Your task to perform on an android device: Open calendar and show me the fourth week of next month Image 0: 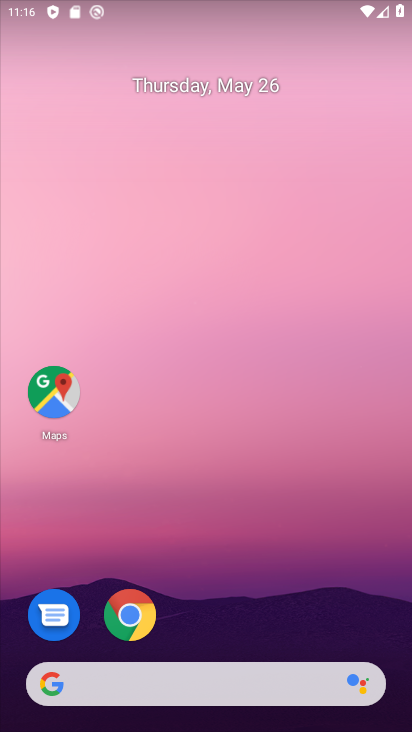
Step 0: drag from (237, 648) to (139, 177)
Your task to perform on an android device: Open calendar and show me the fourth week of next month Image 1: 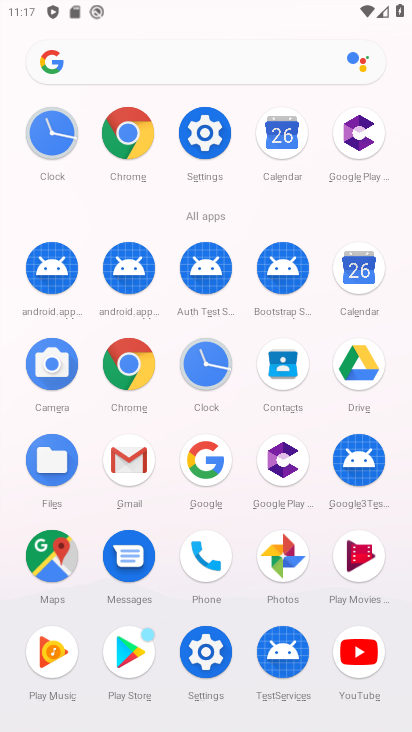
Step 1: click (276, 145)
Your task to perform on an android device: Open calendar and show me the fourth week of next month Image 2: 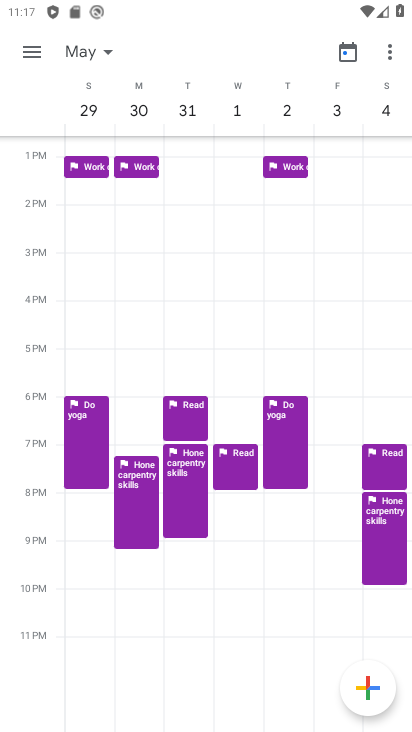
Step 2: click (101, 48)
Your task to perform on an android device: Open calendar and show me the fourth week of next month Image 3: 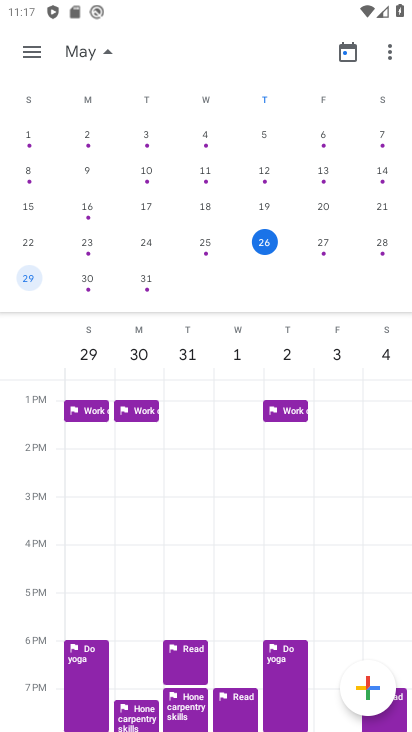
Step 3: drag from (400, 200) to (3, 169)
Your task to perform on an android device: Open calendar and show me the fourth week of next month Image 4: 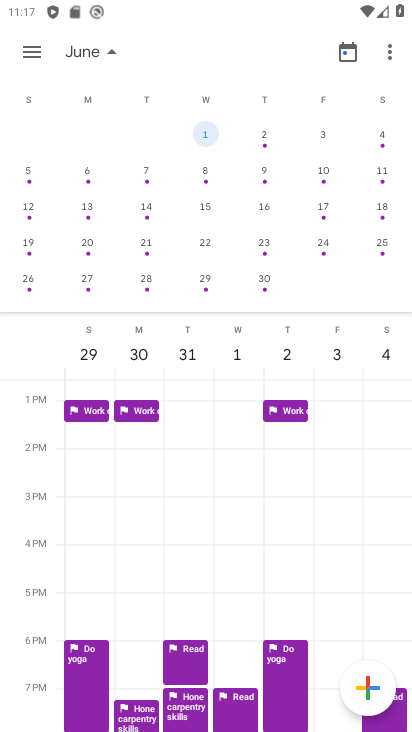
Step 4: click (149, 246)
Your task to perform on an android device: Open calendar and show me the fourth week of next month Image 5: 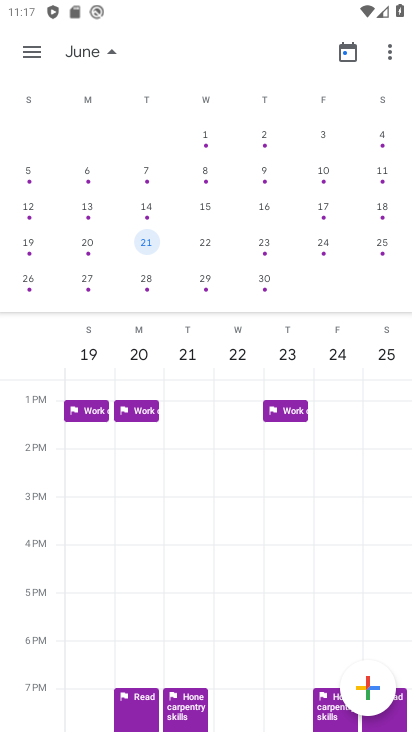
Step 5: task complete